Your task to perform on an android device: Open calendar and show me the second week of next month Image 0: 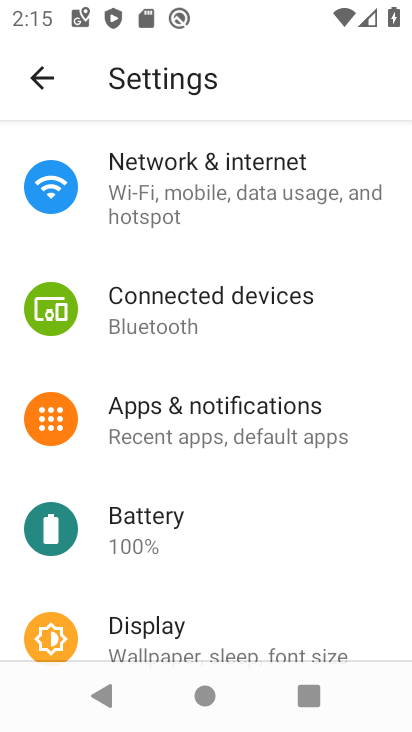
Step 0: press home button
Your task to perform on an android device: Open calendar and show me the second week of next month Image 1: 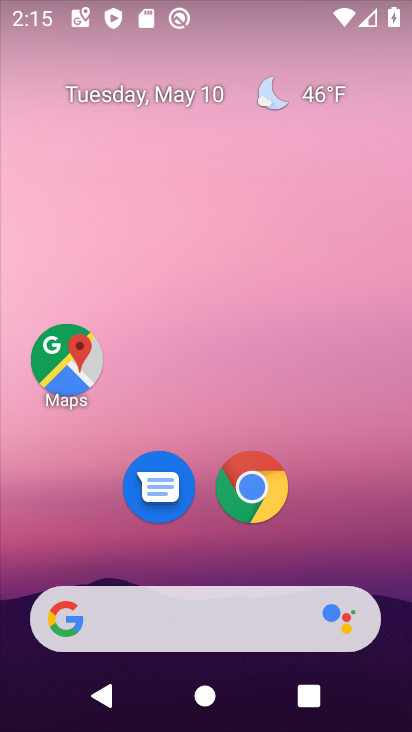
Step 1: drag from (315, 495) to (372, 57)
Your task to perform on an android device: Open calendar and show me the second week of next month Image 2: 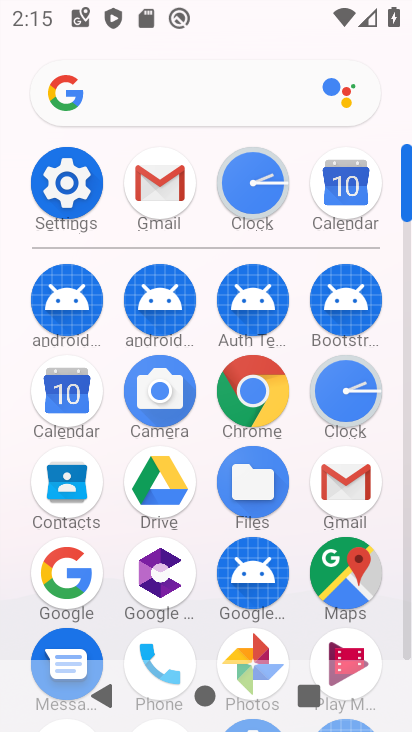
Step 2: click (67, 392)
Your task to perform on an android device: Open calendar and show me the second week of next month Image 3: 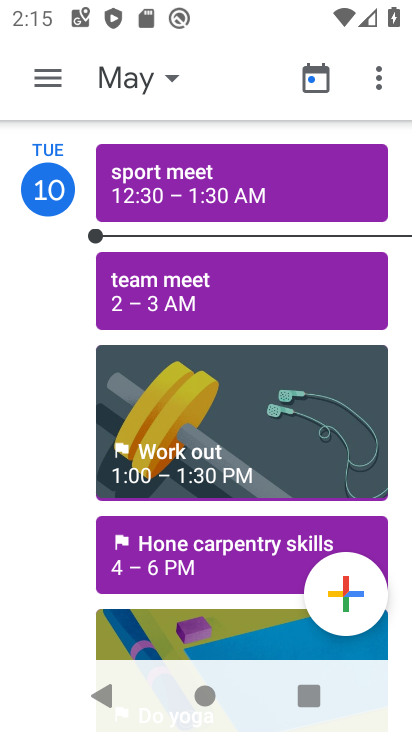
Step 3: click (138, 69)
Your task to perform on an android device: Open calendar and show me the second week of next month Image 4: 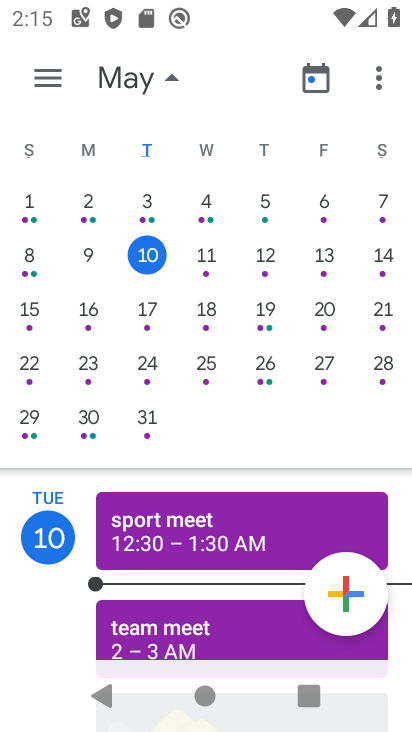
Step 4: drag from (379, 237) to (12, 265)
Your task to perform on an android device: Open calendar and show me the second week of next month Image 5: 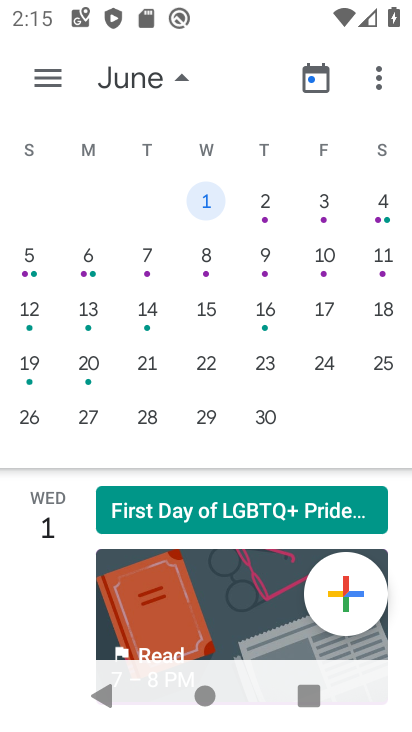
Step 5: click (89, 258)
Your task to perform on an android device: Open calendar and show me the second week of next month Image 6: 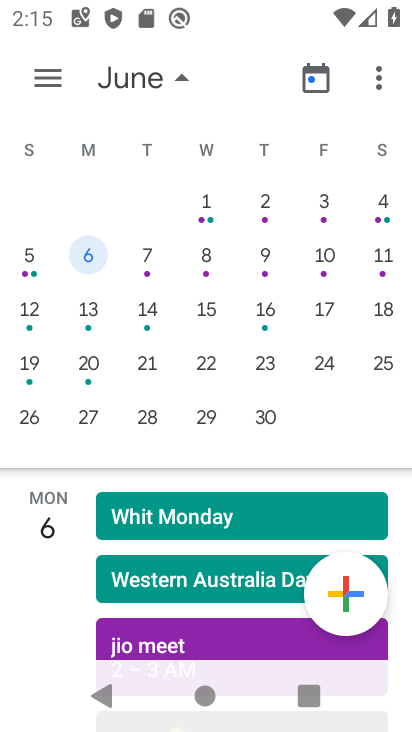
Step 6: click (86, 311)
Your task to perform on an android device: Open calendar and show me the second week of next month Image 7: 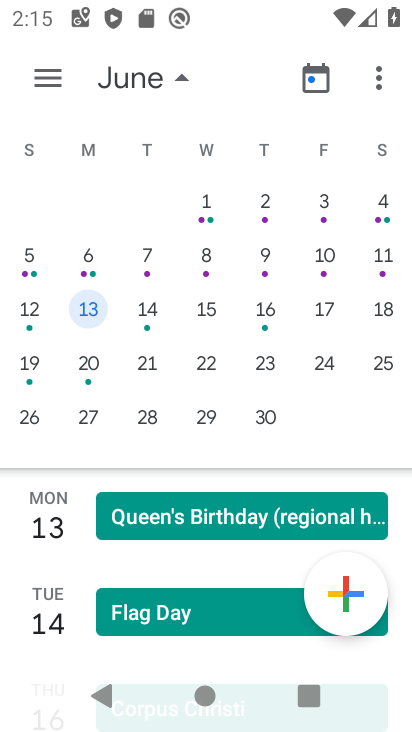
Step 7: click (35, 314)
Your task to perform on an android device: Open calendar and show me the second week of next month Image 8: 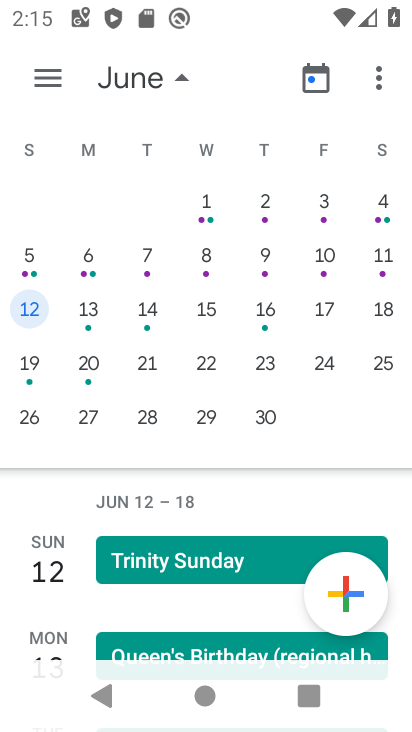
Step 8: task complete